Your task to perform on an android device: change the clock display to show seconds Image 0: 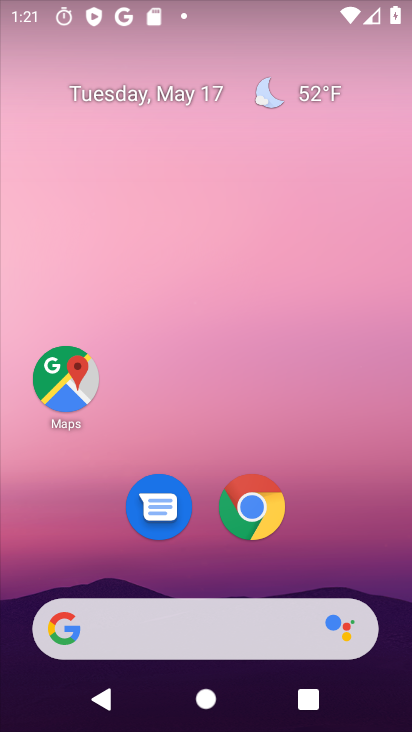
Step 0: drag from (204, 553) to (179, 103)
Your task to perform on an android device: change the clock display to show seconds Image 1: 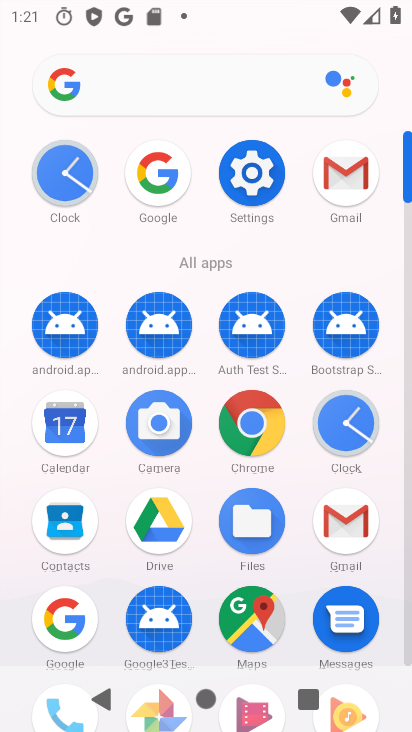
Step 1: click (349, 424)
Your task to perform on an android device: change the clock display to show seconds Image 2: 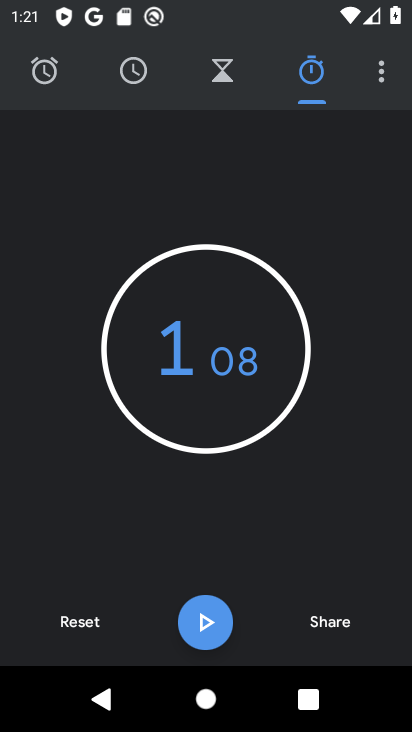
Step 2: click (366, 66)
Your task to perform on an android device: change the clock display to show seconds Image 3: 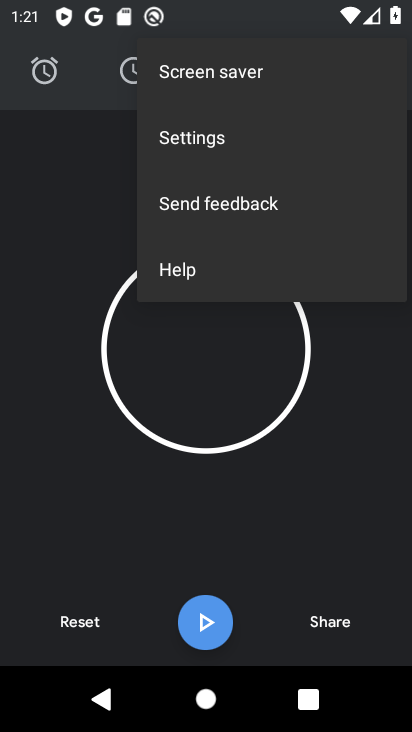
Step 3: click (228, 149)
Your task to perform on an android device: change the clock display to show seconds Image 4: 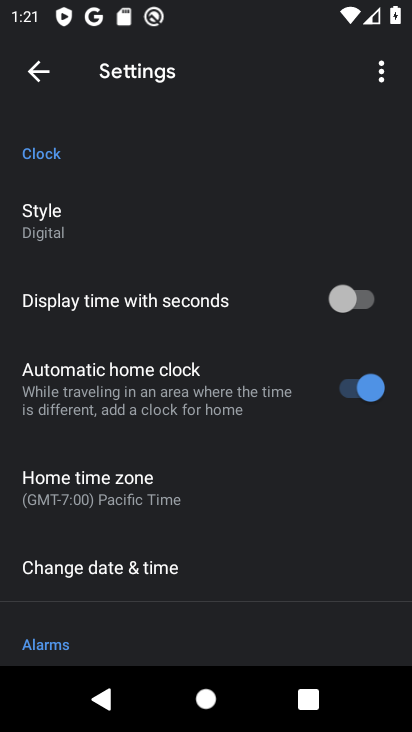
Step 4: click (358, 295)
Your task to perform on an android device: change the clock display to show seconds Image 5: 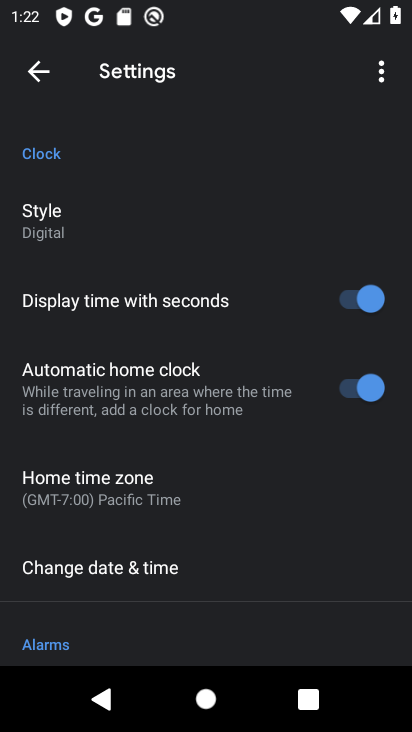
Step 5: task complete